Your task to perform on an android device: Open eBay Image 0: 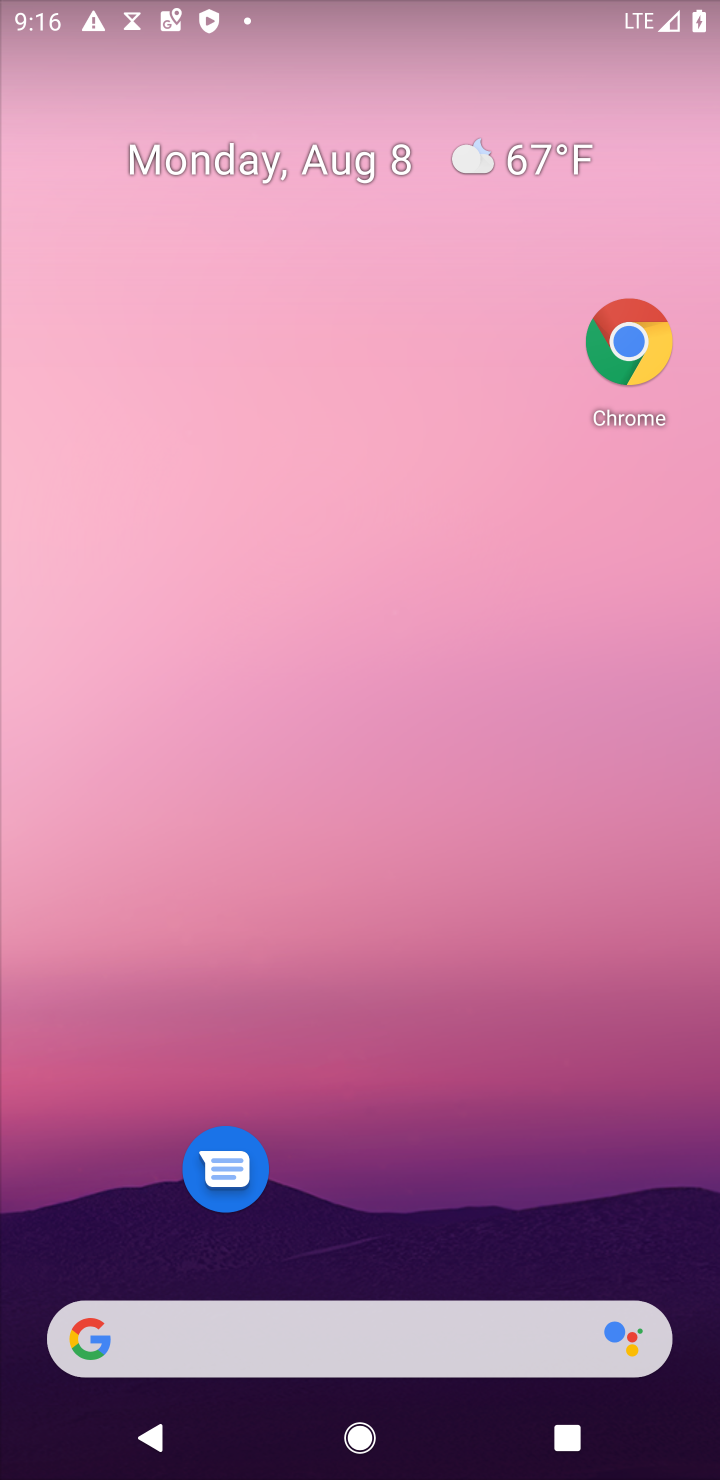
Step 0: click (631, 325)
Your task to perform on an android device: Open eBay Image 1: 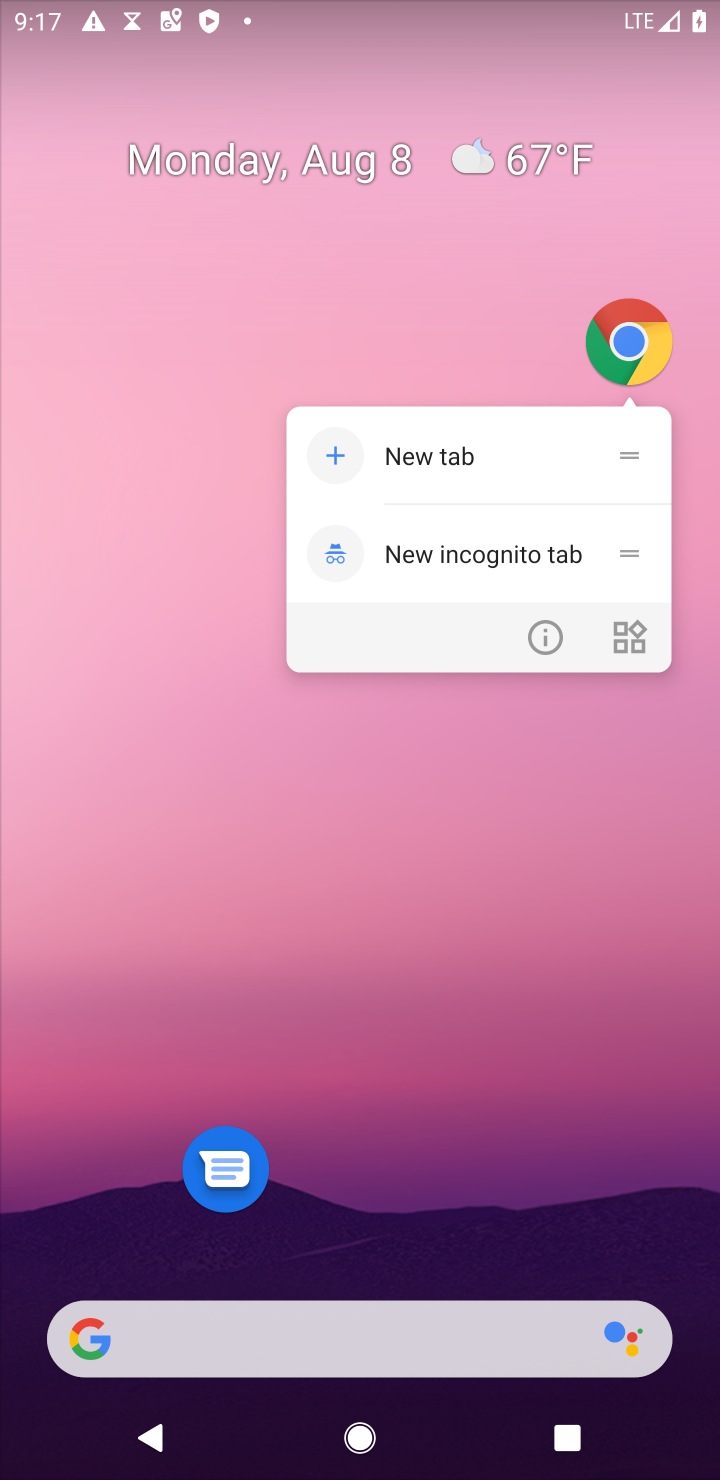
Step 1: click (619, 329)
Your task to perform on an android device: Open eBay Image 2: 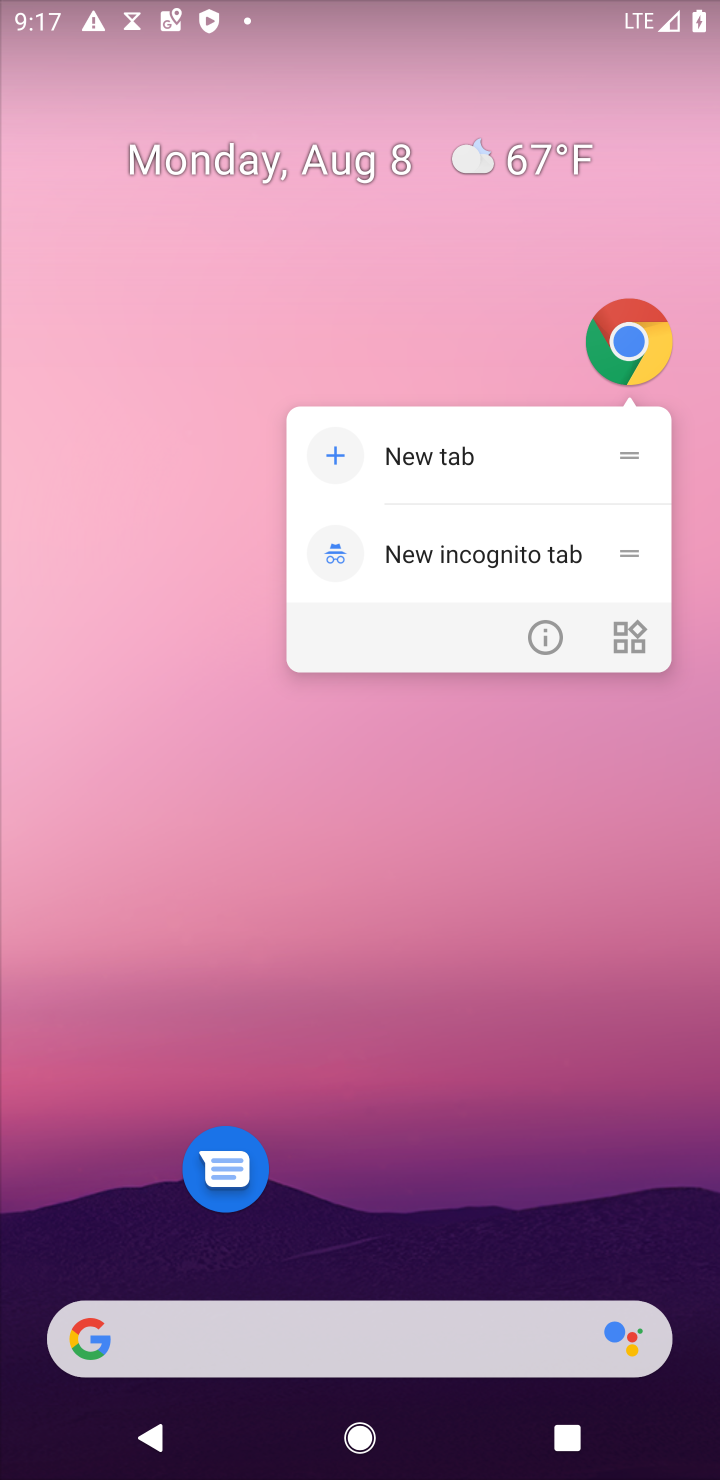
Step 2: click (642, 333)
Your task to perform on an android device: Open eBay Image 3: 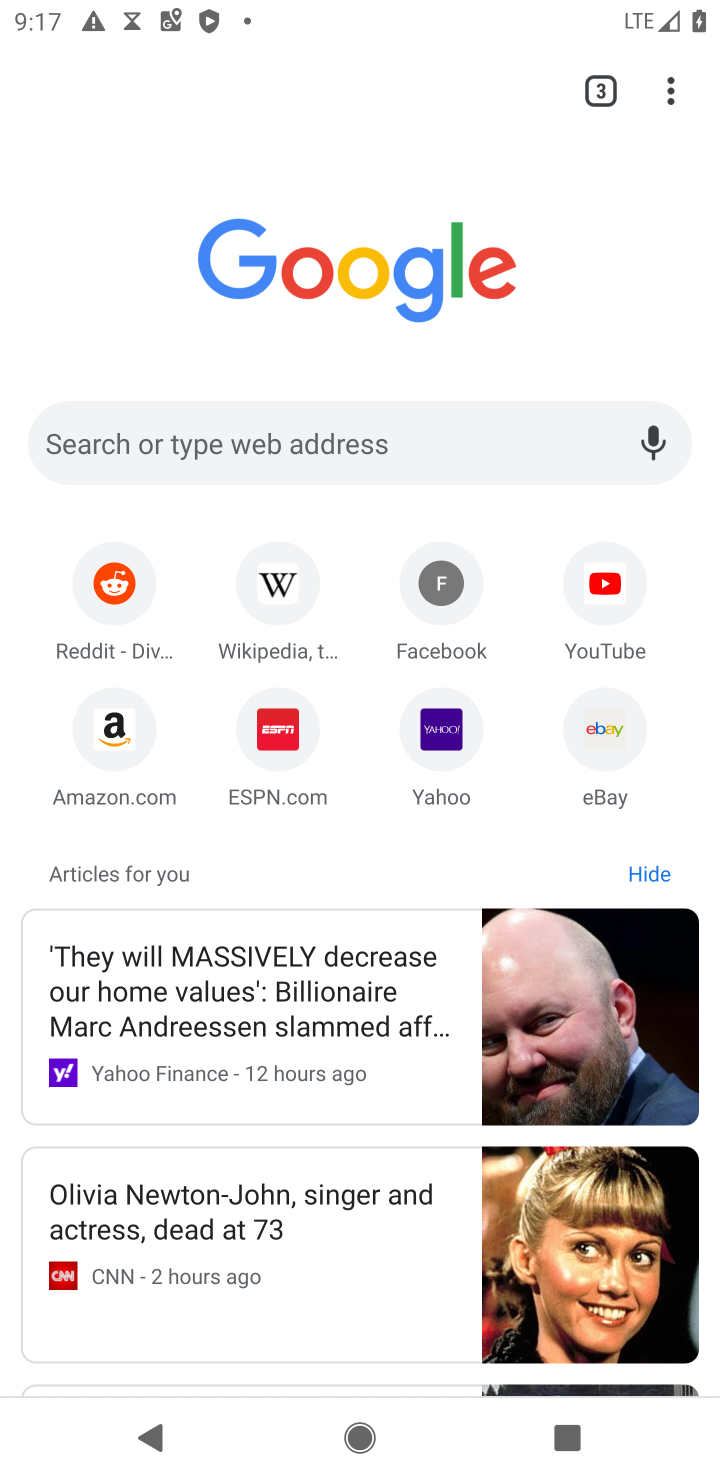
Step 3: click (596, 730)
Your task to perform on an android device: Open eBay Image 4: 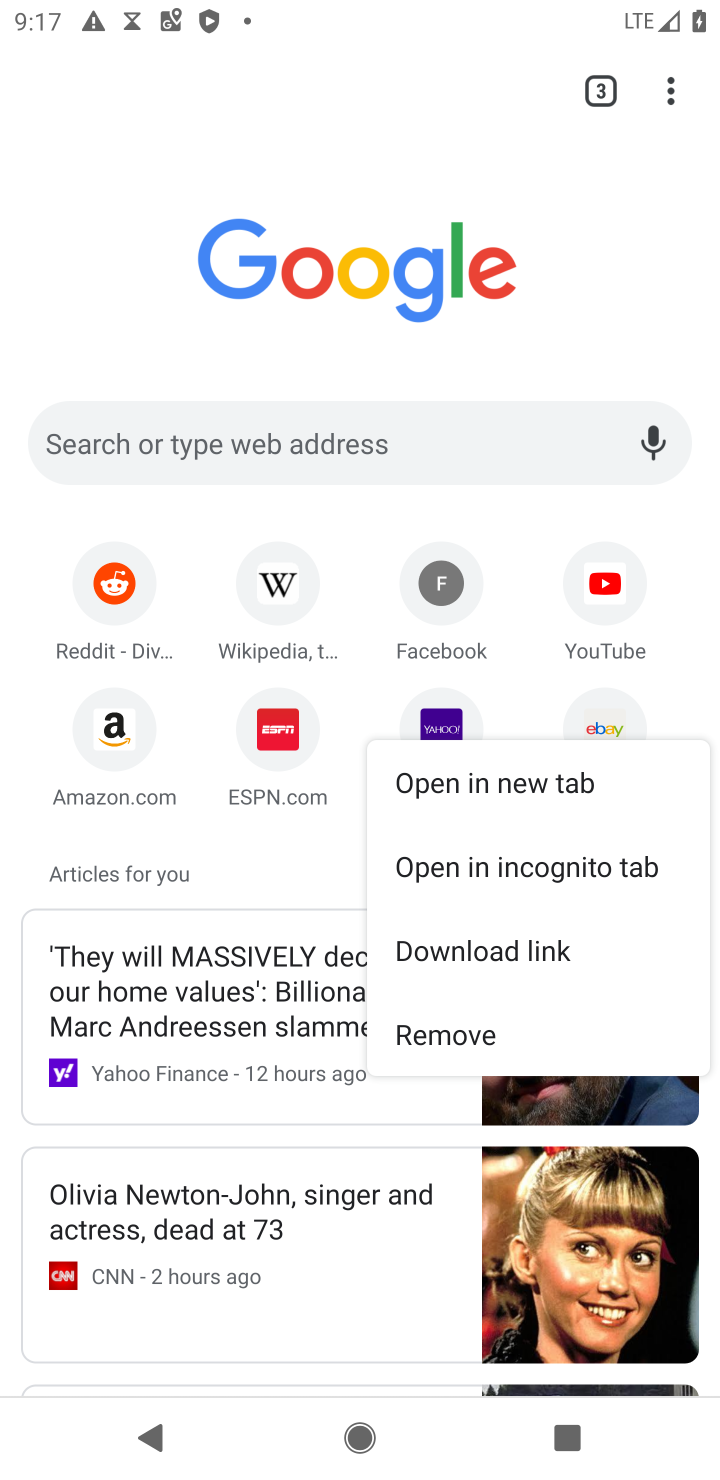
Step 4: click (581, 707)
Your task to perform on an android device: Open eBay Image 5: 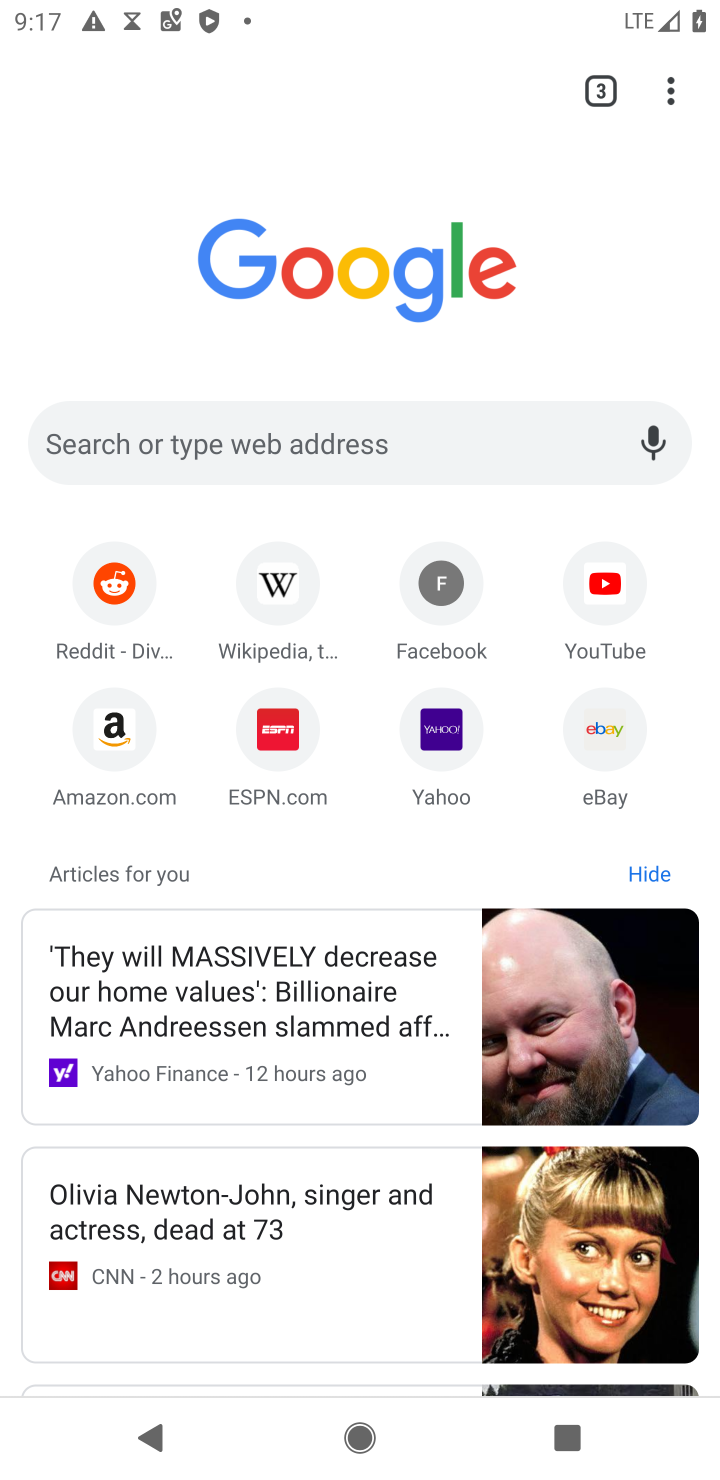
Step 5: click (614, 726)
Your task to perform on an android device: Open eBay Image 6: 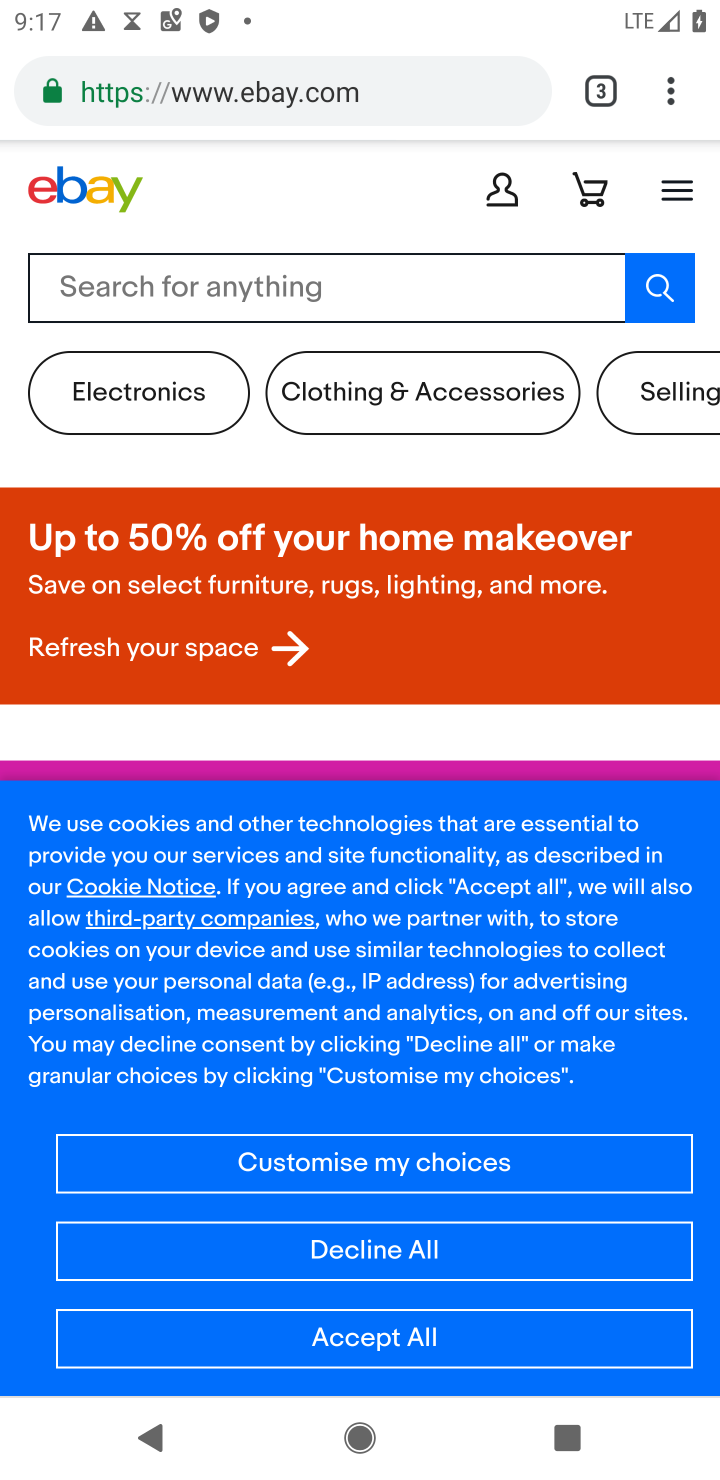
Step 6: task complete